Your task to perform on an android device: Turn on the flashlight Image 0: 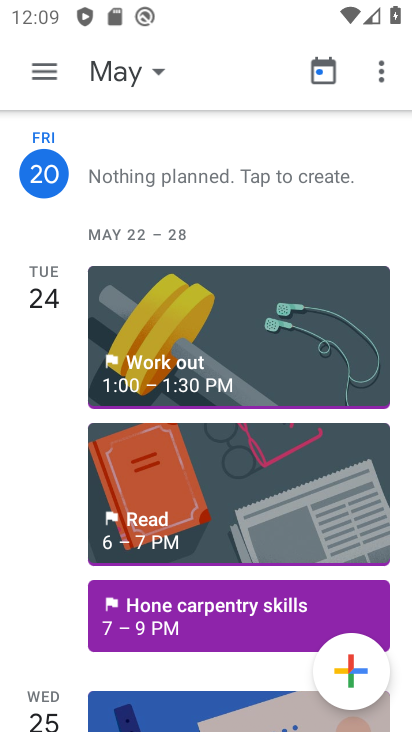
Step 0: press home button
Your task to perform on an android device: Turn on the flashlight Image 1: 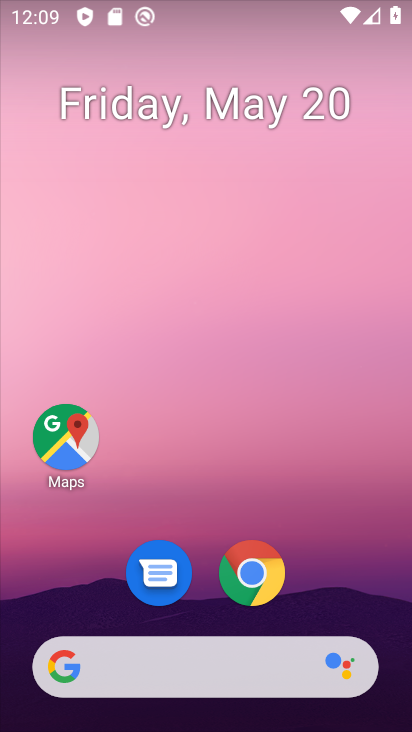
Step 1: drag from (222, 618) to (254, 31)
Your task to perform on an android device: Turn on the flashlight Image 2: 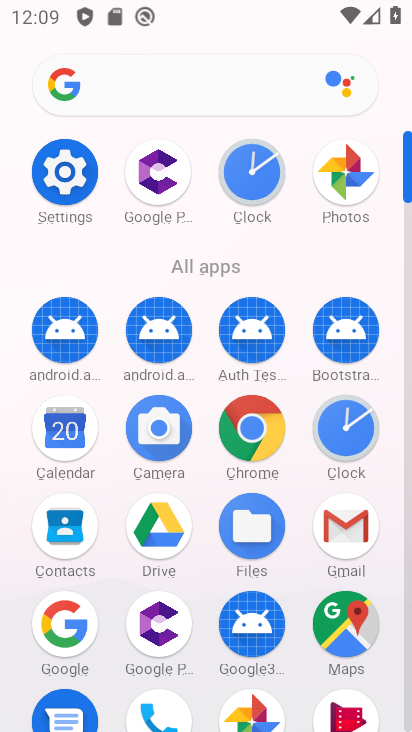
Step 2: click (49, 161)
Your task to perform on an android device: Turn on the flashlight Image 3: 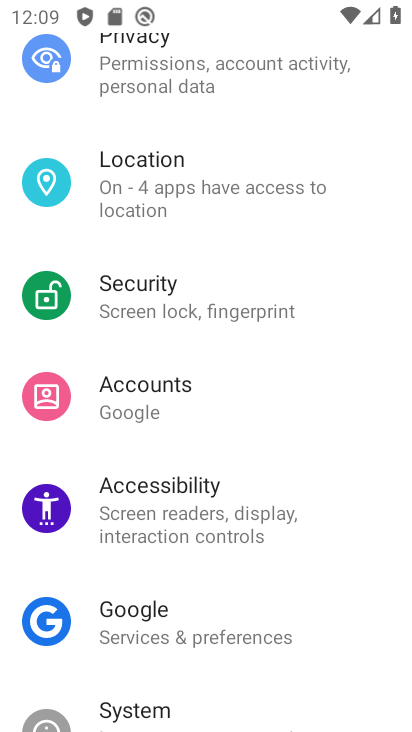
Step 3: task complete